Your task to perform on an android device: stop showing notifications on the lock screen Image 0: 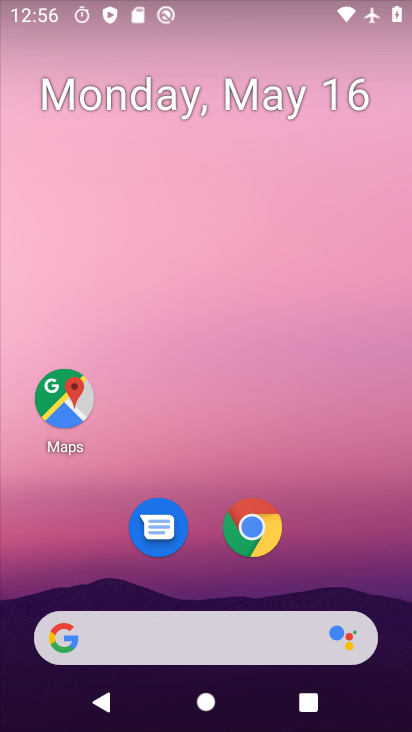
Step 0: click (381, 488)
Your task to perform on an android device: stop showing notifications on the lock screen Image 1: 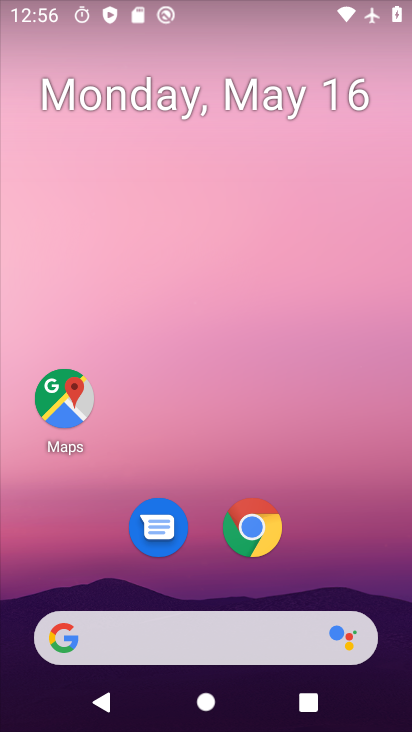
Step 1: drag from (170, 631) to (347, 19)
Your task to perform on an android device: stop showing notifications on the lock screen Image 2: 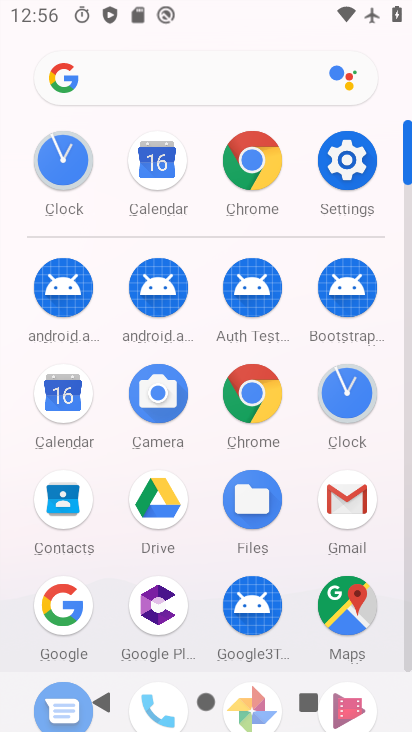
Step 2: click (341, 170)
Your task to perform on an android device: stop showing notifications on the lock screen Image 3: 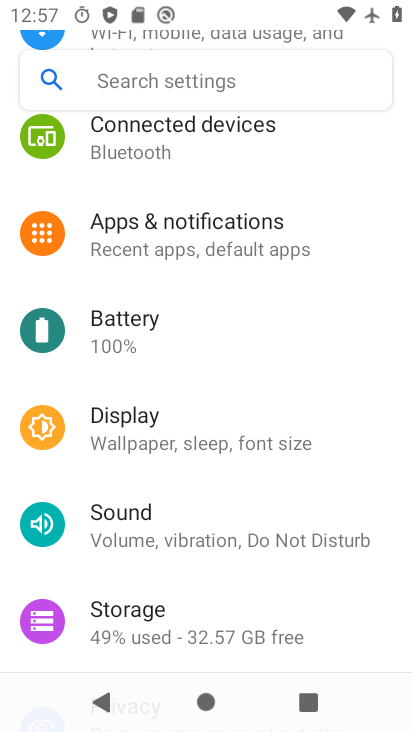
Step 3: click (214, 229)
Your task to perform on an android device: stop showing notifications on the lock screen Image 4: 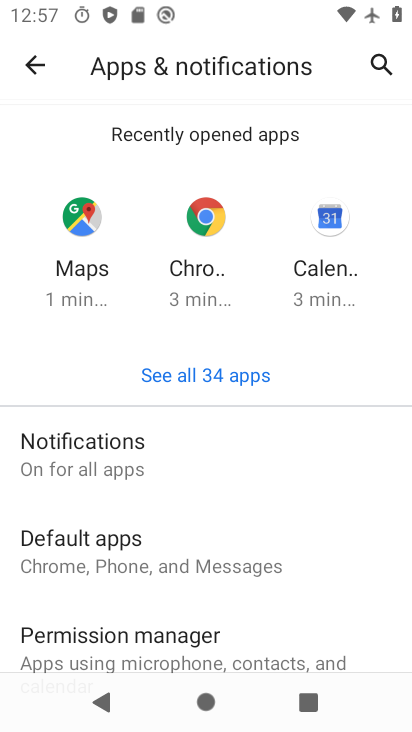
Step 4: click (133, 455)
Your task to perform on an android device: stop showing notifications on the lock screen Image 5: 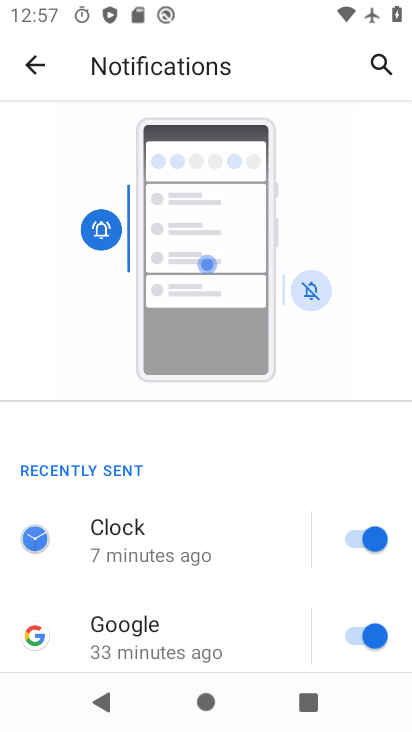
Step 5: drag from (194, 618) to (403, 186)
Your task to perform on an android device: stop showing notifications on the lock screen Image 6: 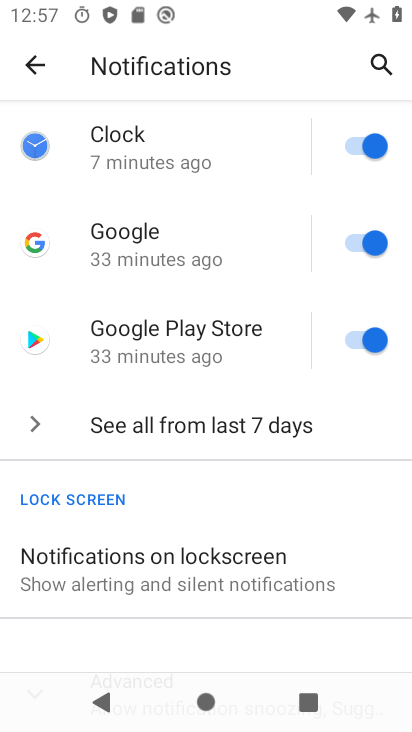
Step 6: click (208, 571)
Your task to perform on an android device: stop showing notifications on the lock screen Image 7: 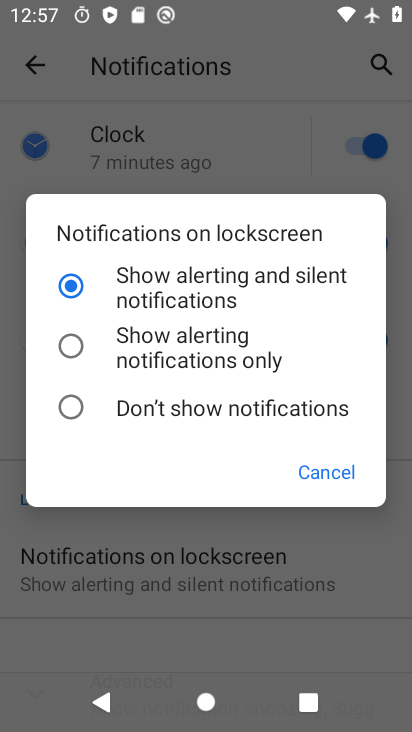
Step 7: click (64, 398)
Your task to perform on an android device: stop showing notifications on the lock screen Image 8: 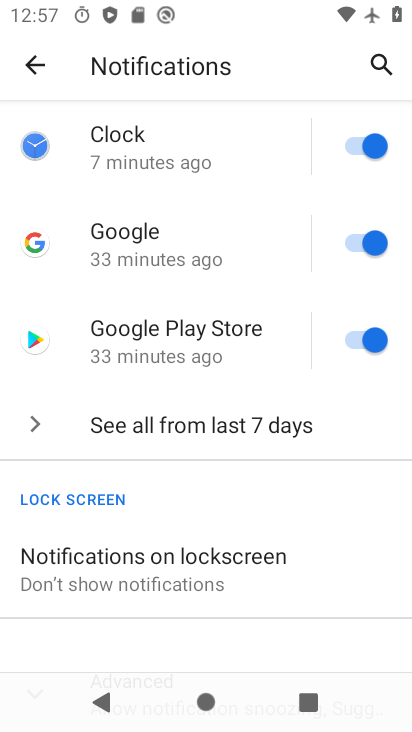
Step 8: task complete